Your task to perform on an android device: Open Reddit.com Image 0: 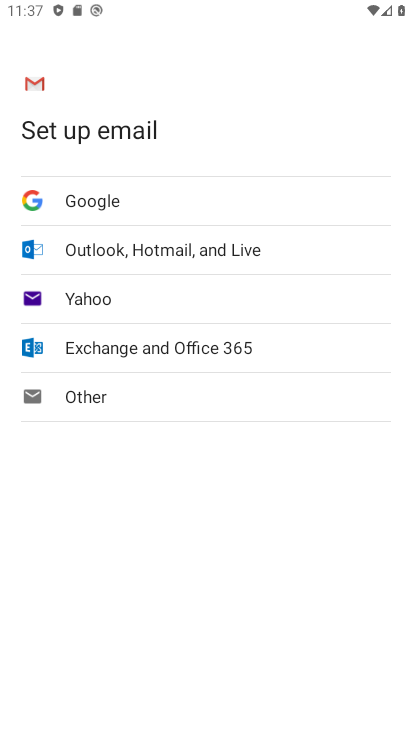
Step 0: press home button
Your task to perform on an android device: Open Reddit.com Image 1: 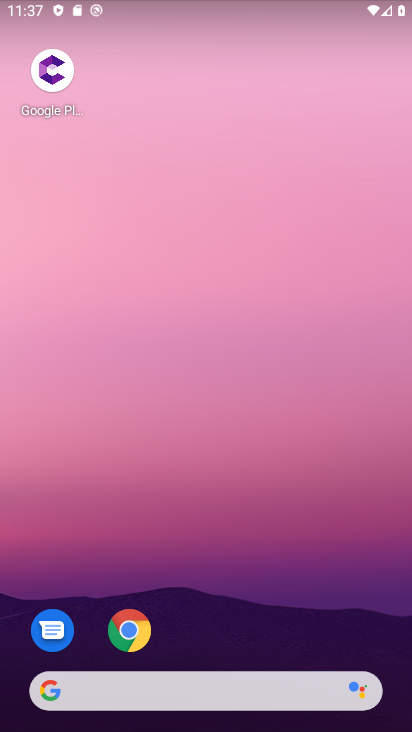
Step 1: click (121, 641)
Your task to perform on an android device: Open Reddit.com Image 2: 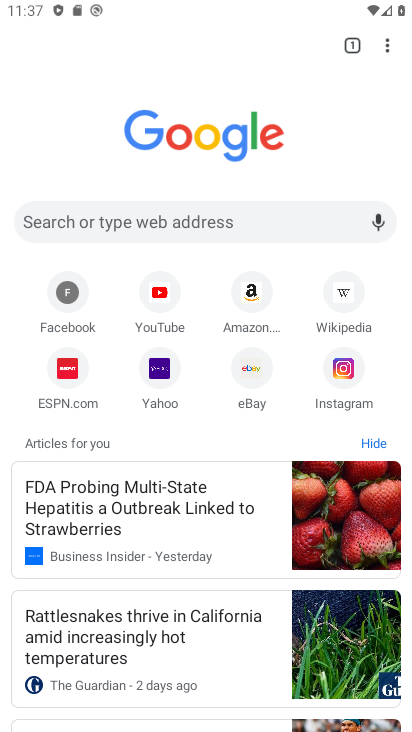
Step 2: click (189, 224)
Your task to perform on an android device: Open Reddit.com Image 3: 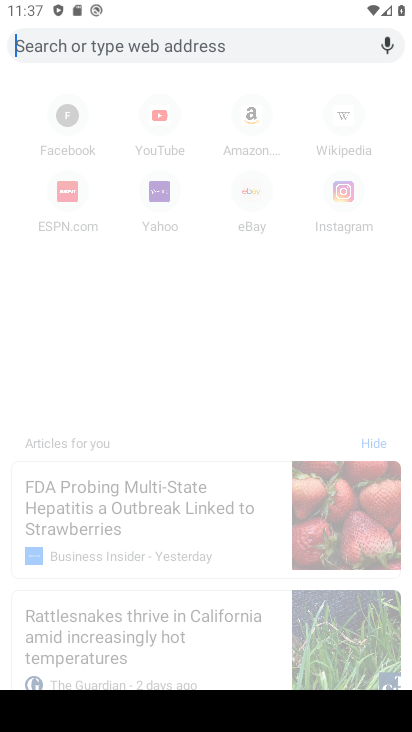
Step 3: type "reddit.com"
Your task to perform on an android device: Open Reddit.com Image 4: 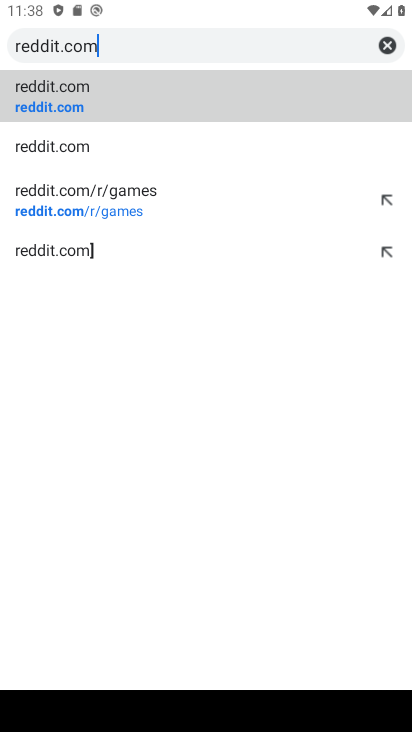
Step 4: click (171, 110)
Your task to perform on an android device: Open Reddit.com Image 5: 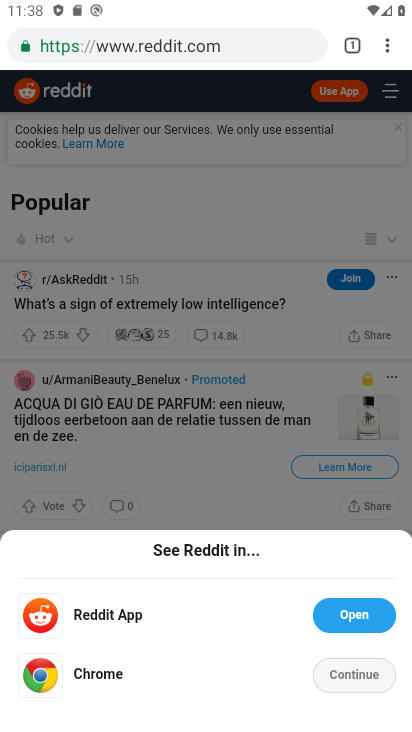
Step 5: click (356, 673)
Your task to perform on an android device: Open Reddit.com Image 6: 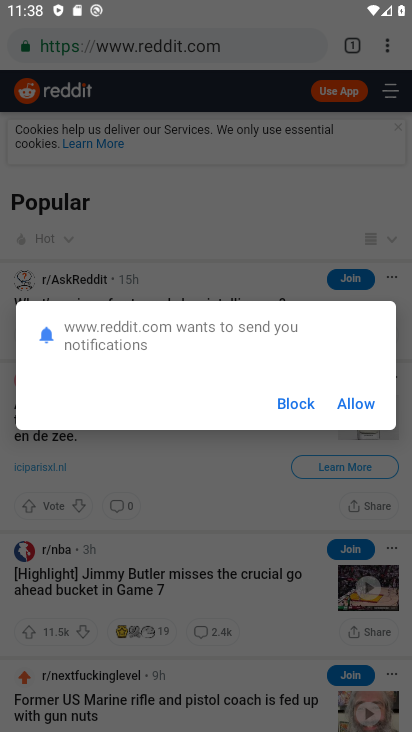
Step 6: click (385, 408)
Your task to perform on an android device: Open Reddit.com Image 7: 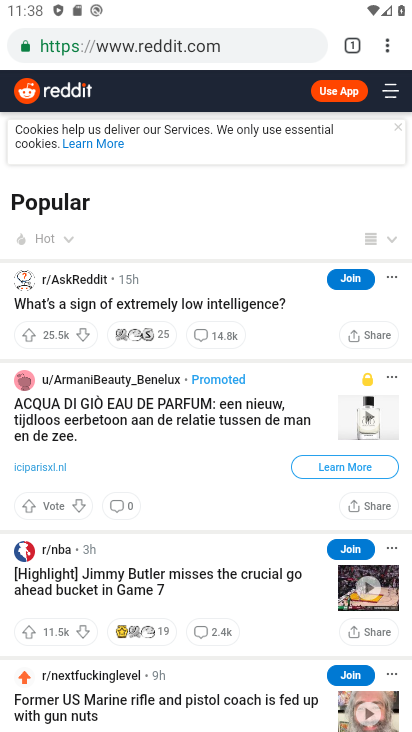
Step 7: task complete